Your task to perform on an android device: Clear the cart on newegg.com. Search for "bose soundlink" on newegg.com, select the first entry, add it to the cart, then select checkout. Image 0: 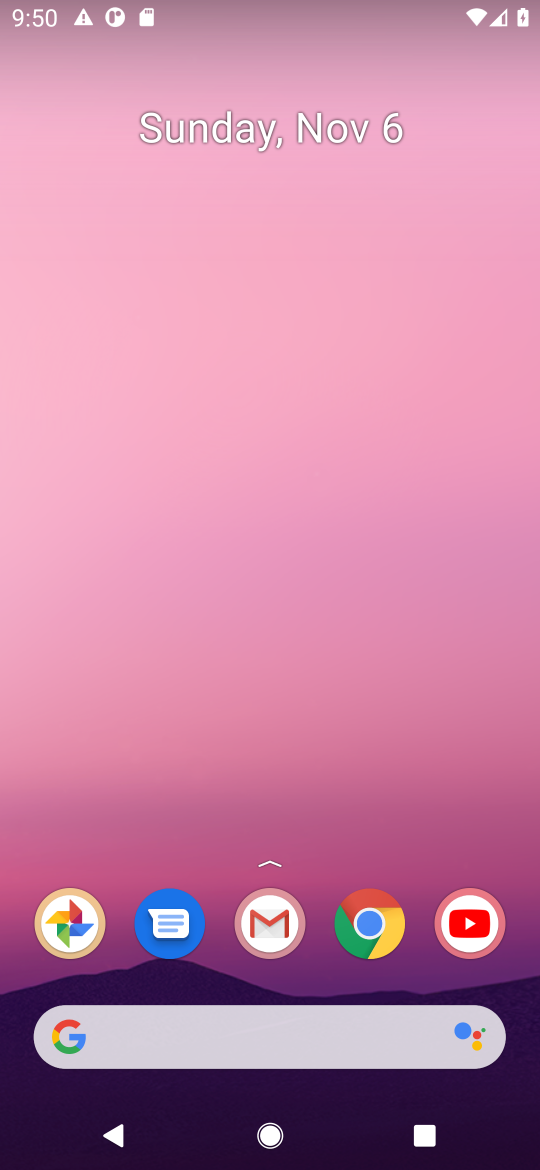
Step 0: click (384, 919)
Your task to perform on an android device: Clear the cart on newegg.com. Search for "bose soundlink" on newegg.com, select the first entry, add it to the cart, then select checkout. Image 1: 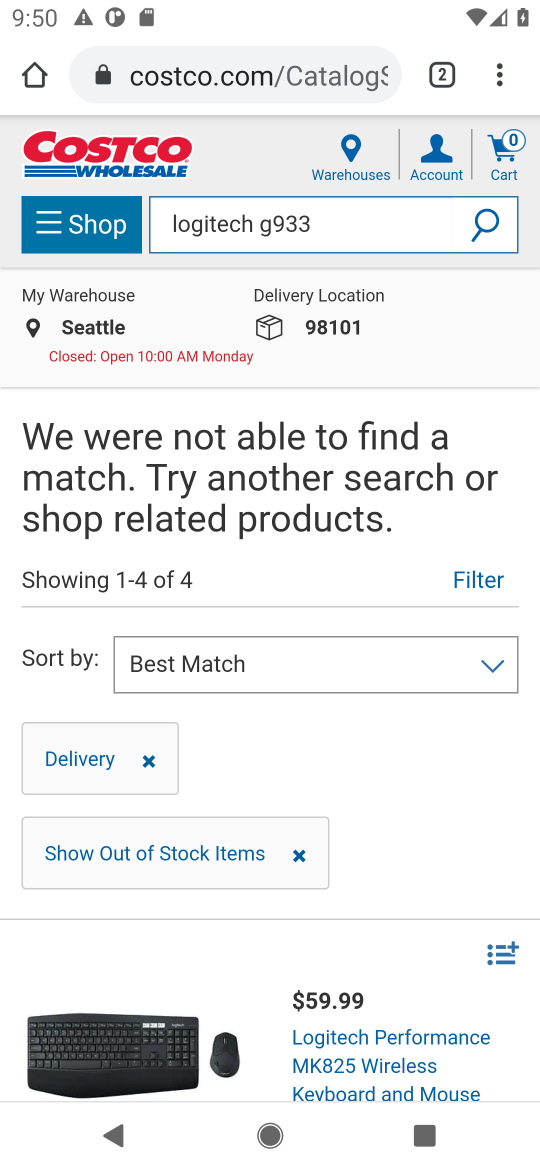
Step 1: press home button
Your task to perform on an android device: Clear the cart on newegg.com. Search for "bose soundlink" on newegg.com, select the first entry, add it to the cart, then select checkout. Image 2: 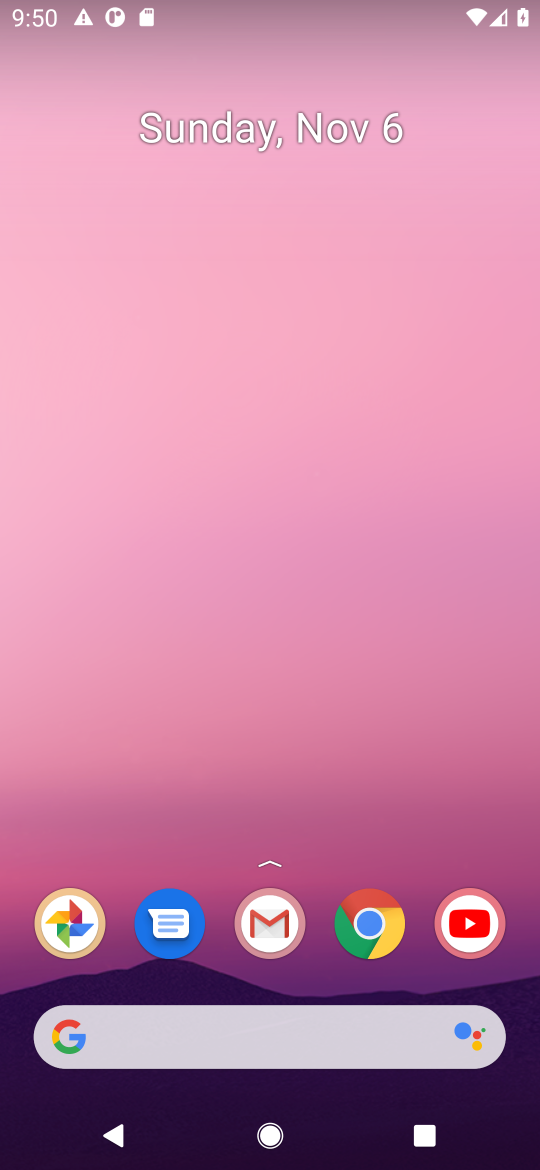
Step 2: click (356, 938)
Your task to perform on an android device: Clear the cart on newegg.com. Search for "bose soundlink" on newegg.com, select the first entry, add it to the cart, then select checkout. Image 3: 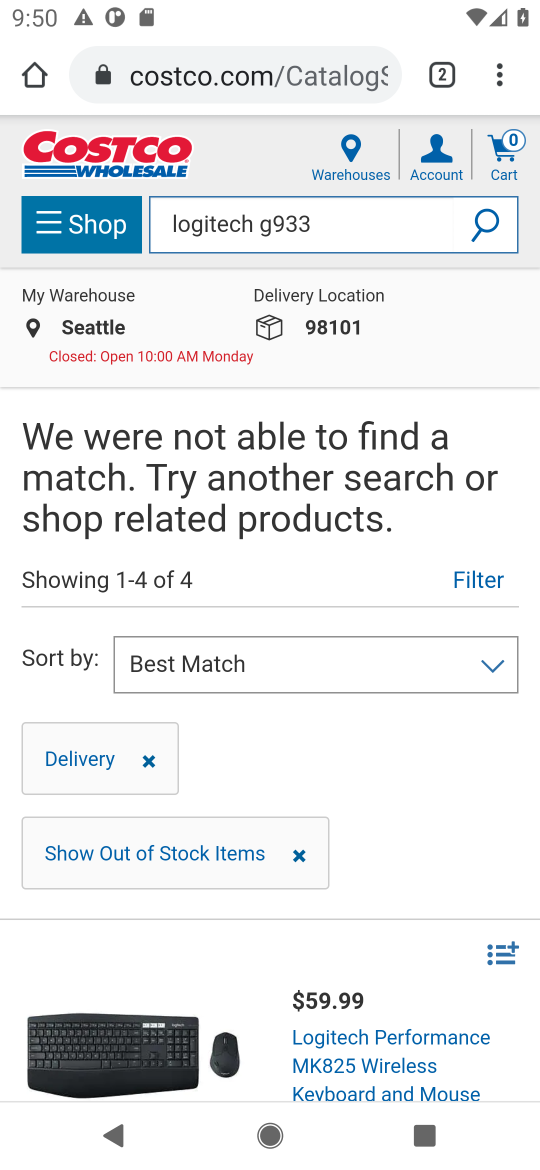
Step 3: click (265, 46)
Your task to perform on an android device: Clear the cart on newegg.com. Search for "bose soundlink" on newegg.com, select the first entry, add it to the cart, then select checkout. Image 4: 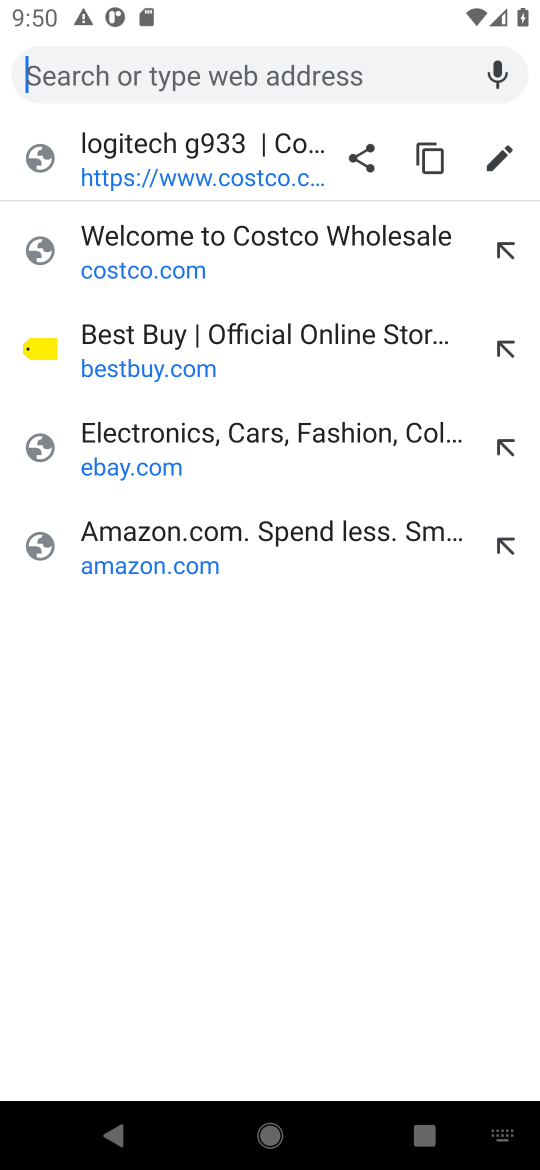
Step 4: type "newegg.com"
Your task to perform on an android device: Clear the cart on newegg.com. Search for "bose soundlink" on newegg.com, select the first entry, add it to the cart, then select checkout. Image 5: 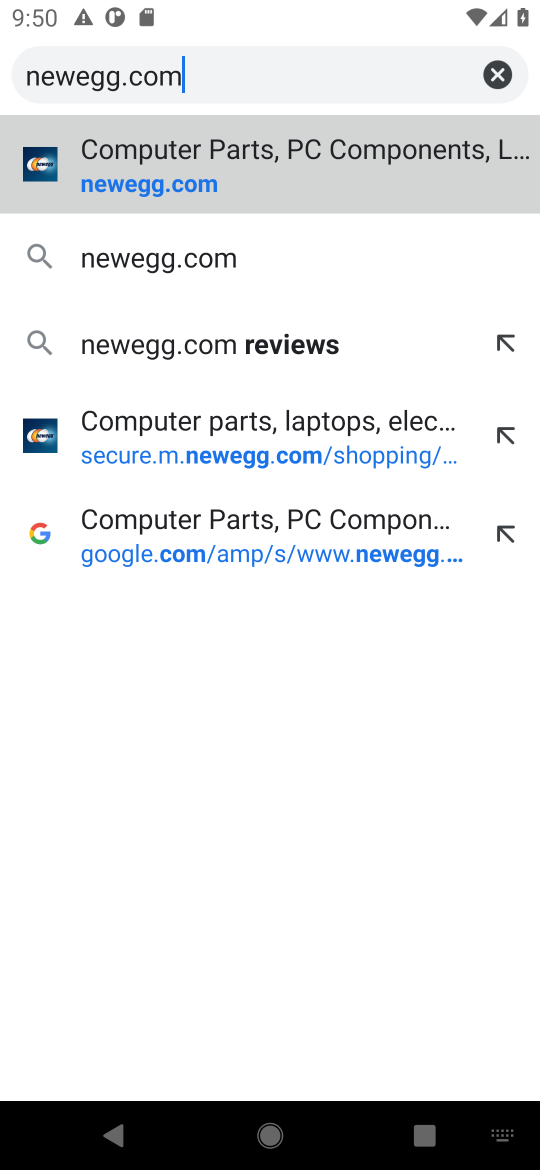
Step 5: click (174, 165)
Your task to perform on an android device: Clear the cart on newegg.com. Search for "bose soundlink" on newegg.com, select the first entry, add it to the cart, then select checkout. Image 6: 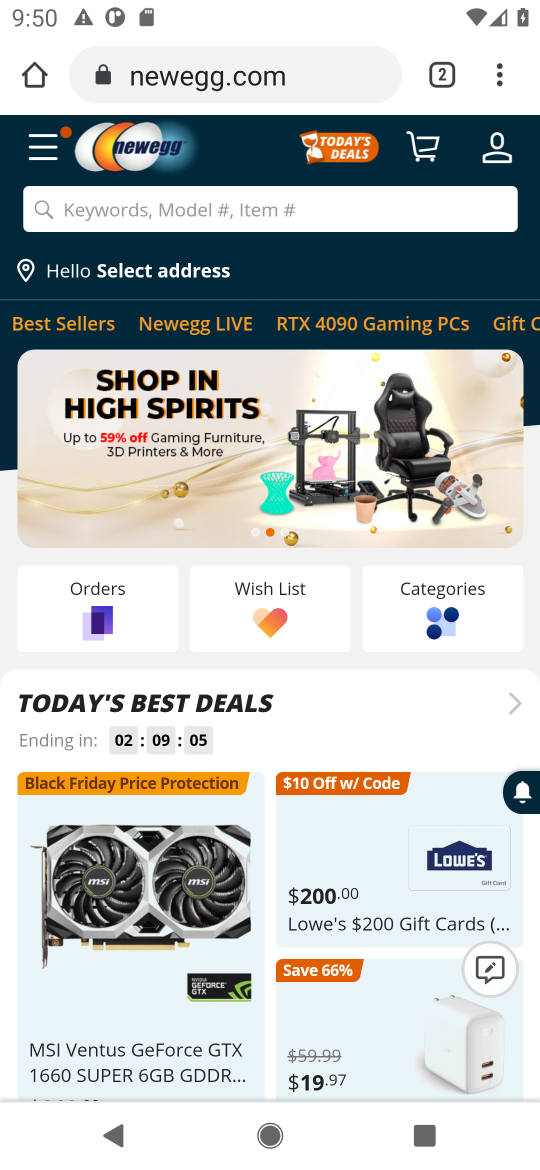
Step 6: click (425, 152)
Your task to perform on an android device: Clear the cart on newegg.com. Search for "bose soundlink" on newegg.com, select the first entry, add it to the cart, then select checkout. Image 7: 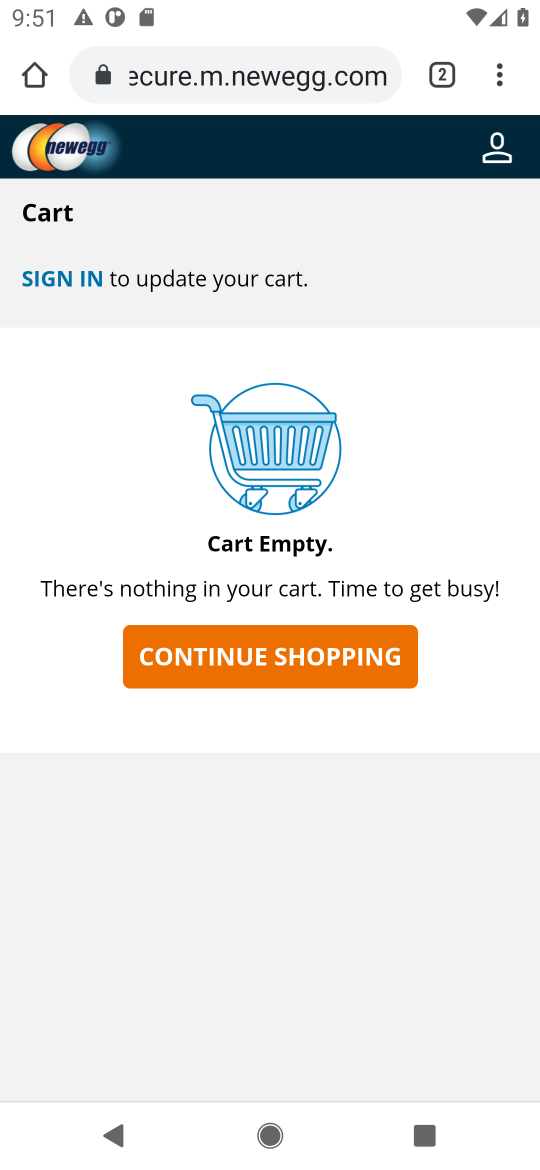
Step 7: click (219, 671)
Your task to perform on an android device: Clear the cart on newegg.com. Search for "bose soundlink" on newegg.com, select the first entry, add it to the cart, then select checkout. Image 8: 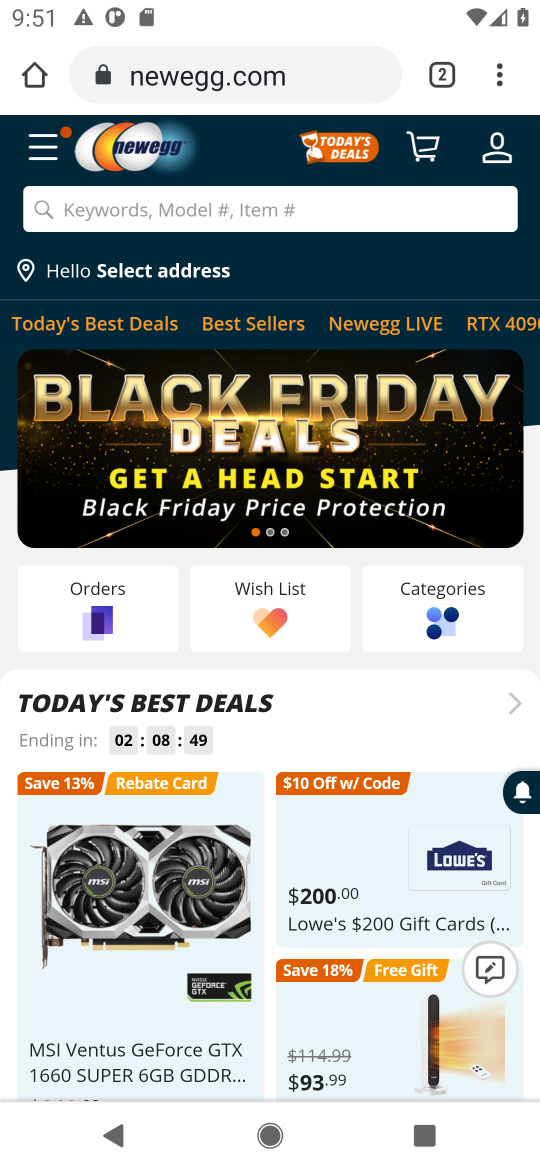
Step 8: click (218, 215)
Your task to perform on an android device: Clear the cart on newegg.com. Search for "bose soundlink" on newegg.com, select the first entry, add it to the cart, then select checkout. Image 9: 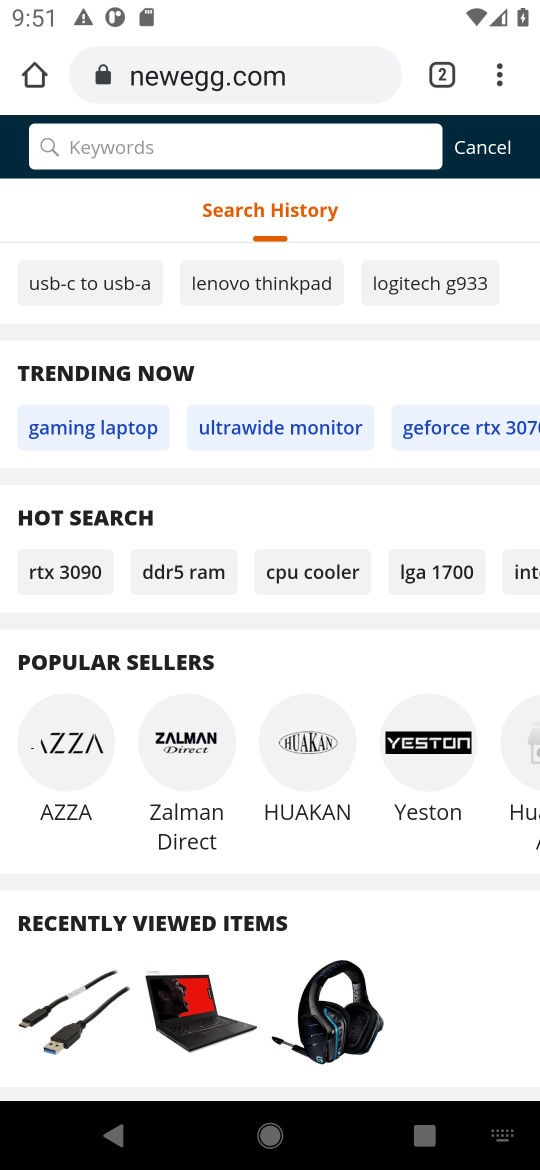
Step 9: type "bose soundlink"
Your task to perform on an android device: Clear the cart on newegg.com. Search for "bose soundlink" on newegg.com, select the first entry, add it to the cart, then select checkout. Image 10: 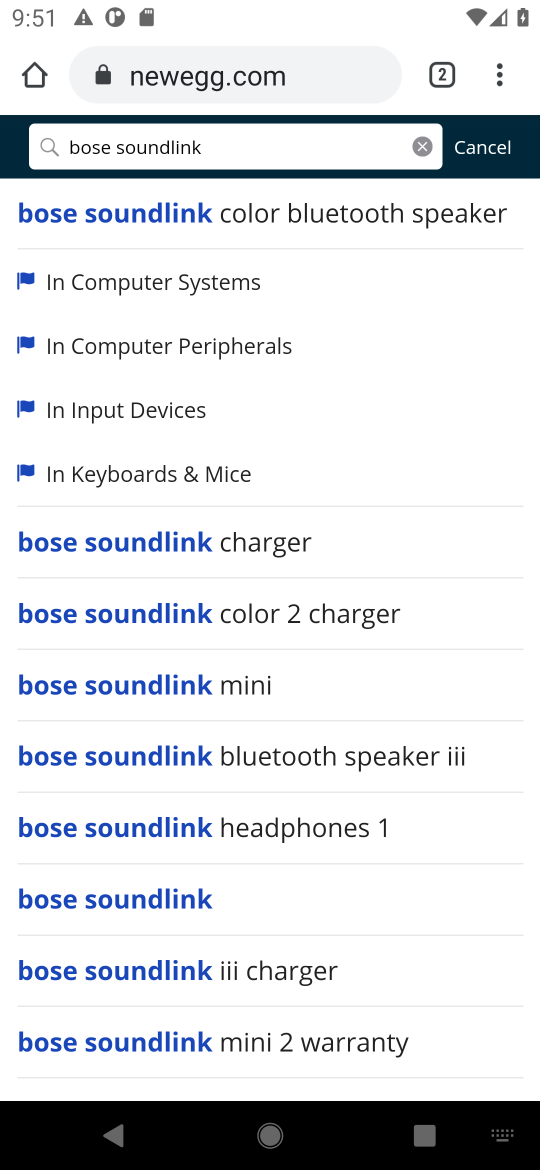
Step 10: click (123, 908)
Your task to perform on an android device: Clear the cart on newegg.com. Search for "bose soundlink" on newegg.com, select the first entry, add it to the cart, then select checkout. Image 11: 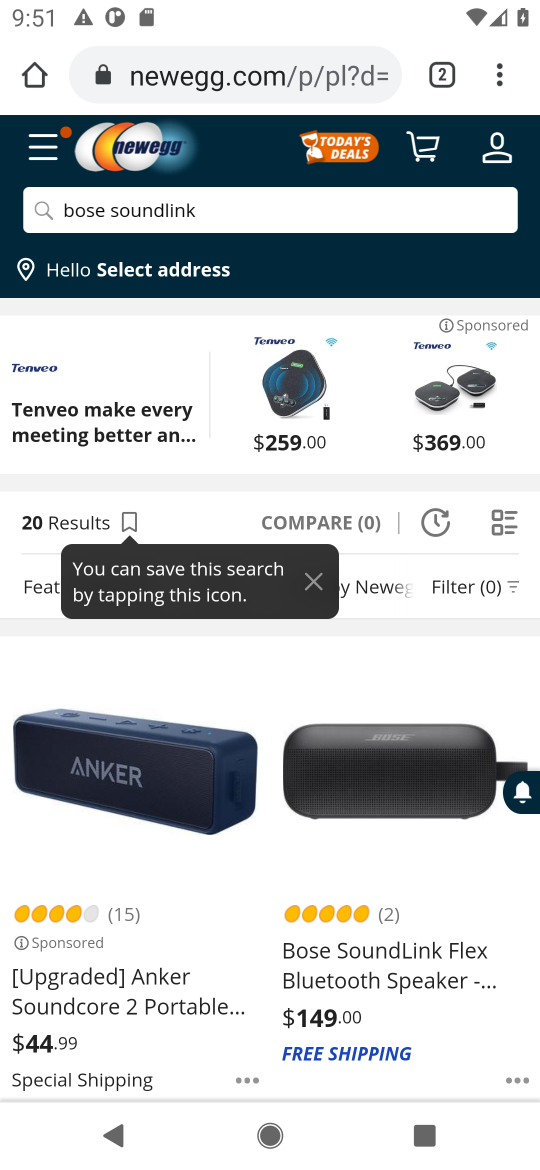
Step 11: task complete